Your task to perform on an android device: change the clock display to analog Image 0: 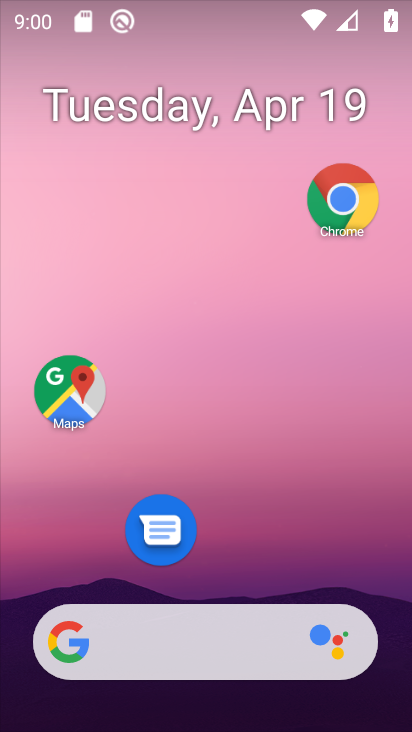
Step 0: drag from (212, 551) to (275, 27)
Your task to perform on an android device: change the clock display to analog Image 1: 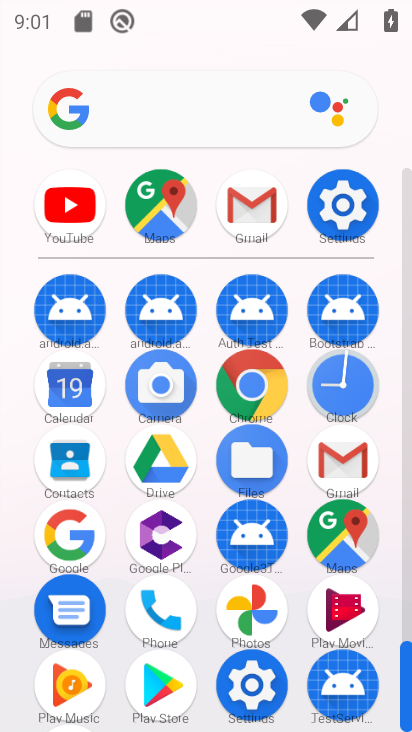
Step 1: click (337, 380)
Your task to perform on an android device: change the clock display to analog Image 2: 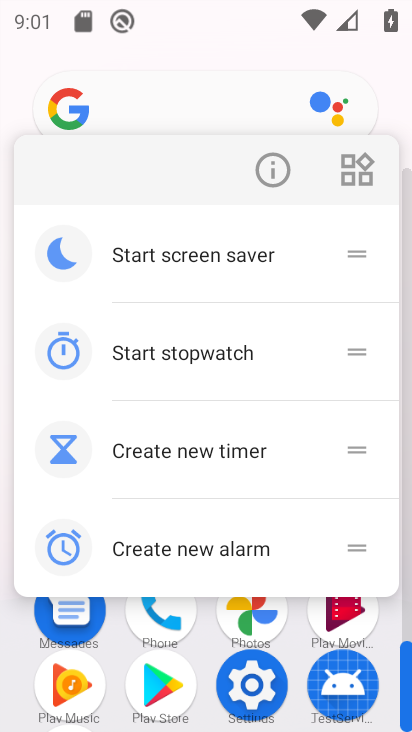
Step 2: click (275, 172)
Your task to perform on an android device: change the clock display to analog Image 3: 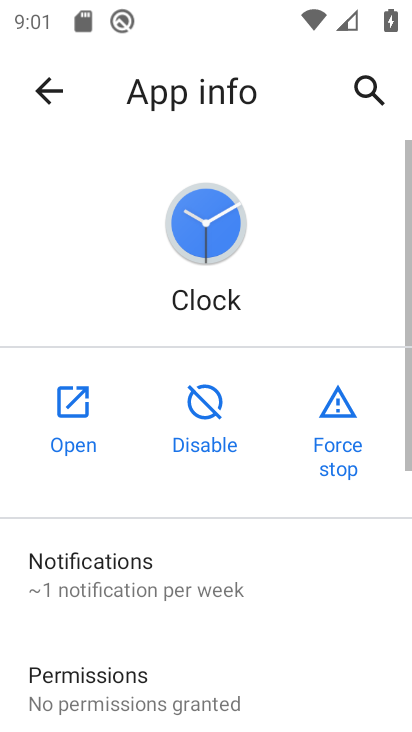
Step 3: click (89, 384)
Your task to perform on an android device: change the clock display to analog Image 4: 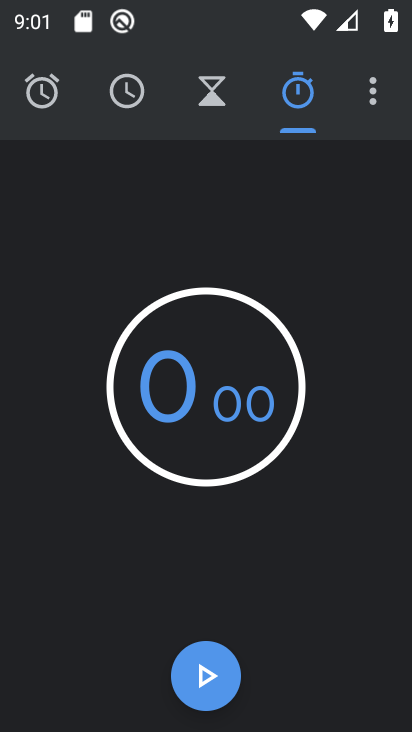
Step 4: click (391, 96)
Your task to perform on an android device: change the clock display to analog Image 5: 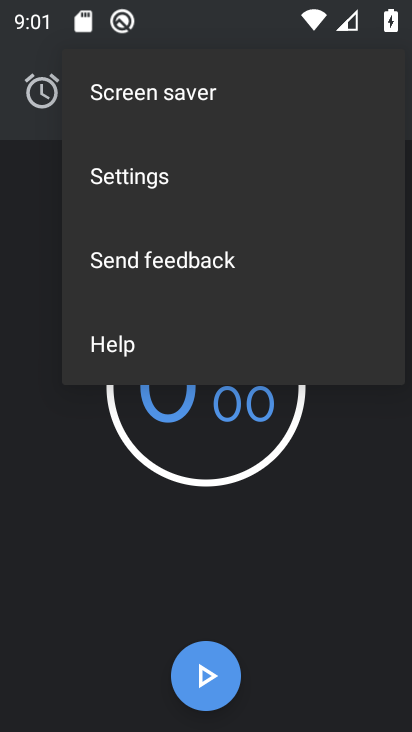
Step 5: click (182, 178)
Your task to perform on an android device: change the clock display to analog Image 6: 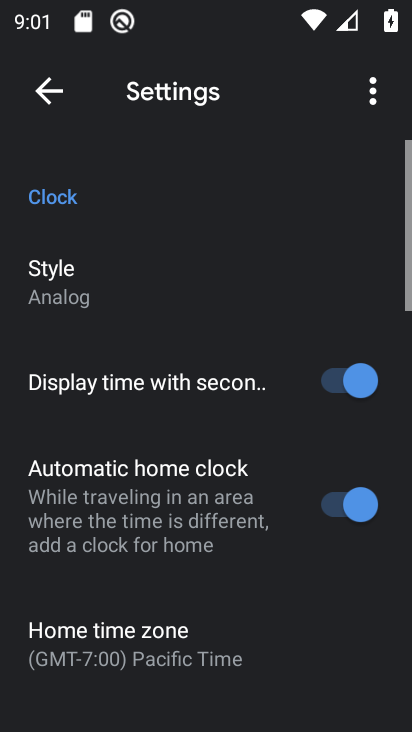
Step 6: click (91, 281)
Your task to perform on an android device: change the clock display to analog Image 7: 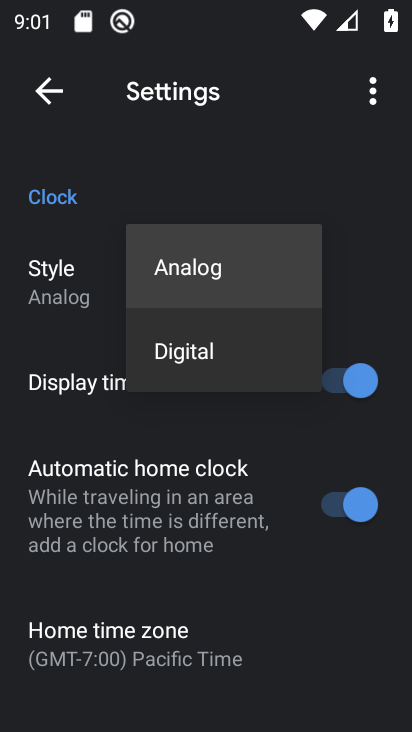
Step 7: click (220, 271)
Your task to perform on an android device: change the clock display to analog Image 8: 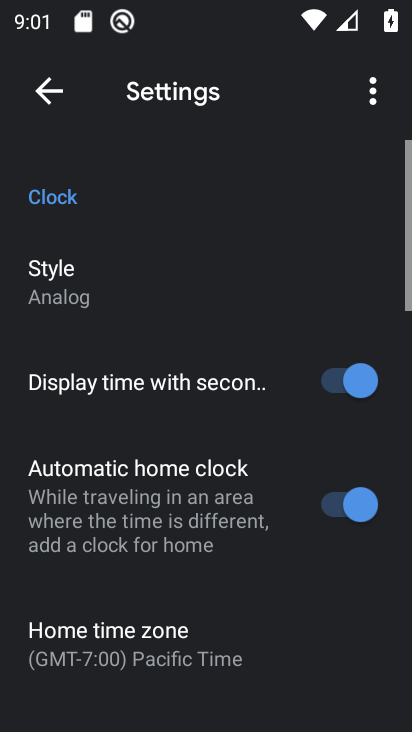
Step 8: task complete